Your task to perform on an android device: turn notification dots on Image 0: 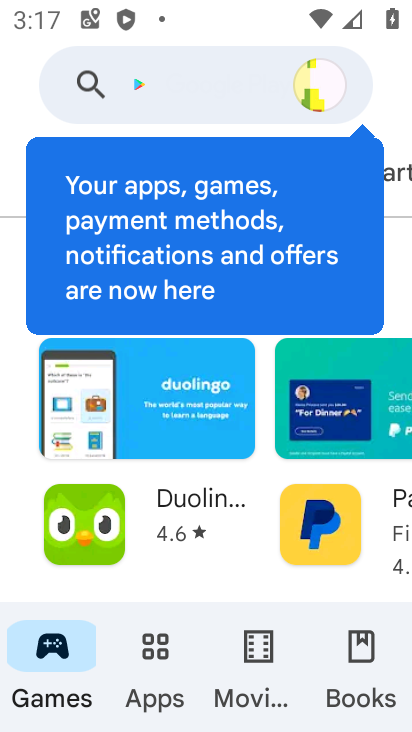
Step 0: press home button
Your task to perform on an android device: turn notification dots on Image 1: 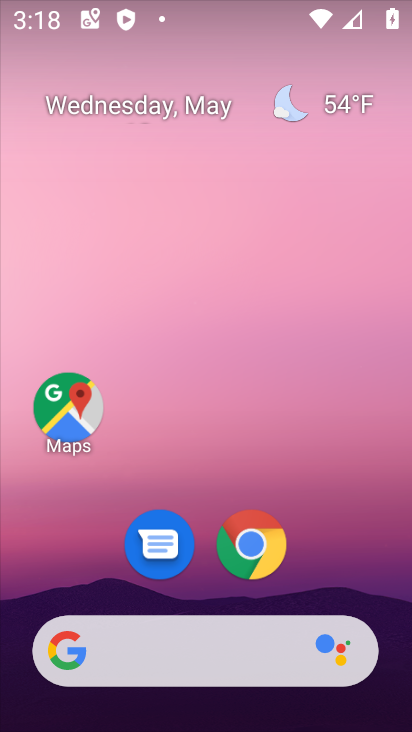
Step 1: drag from (346, 553) to (362, 19)
Your task to perform on an android device: turn notification dots on Image 2: 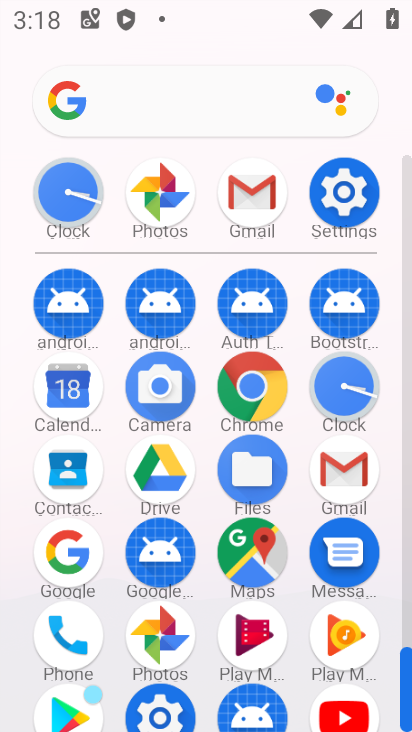
Step 2: click (361, 193)
Your task to perform on an android device: turn notification dots on Image 3: 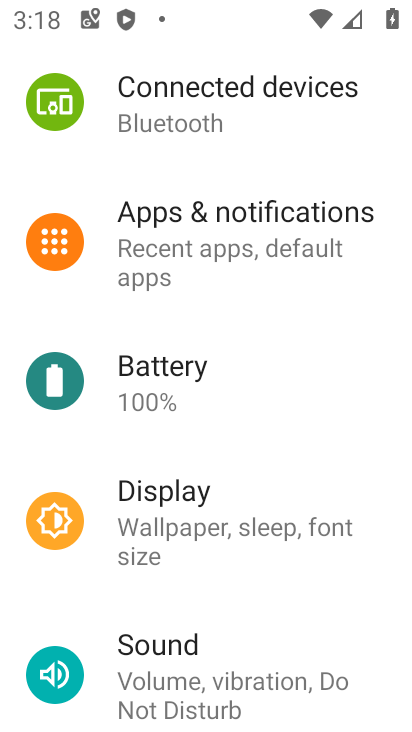
Step 3: click (244, 234)
Your task to perform on an android device: turn notification dots on Image 4: 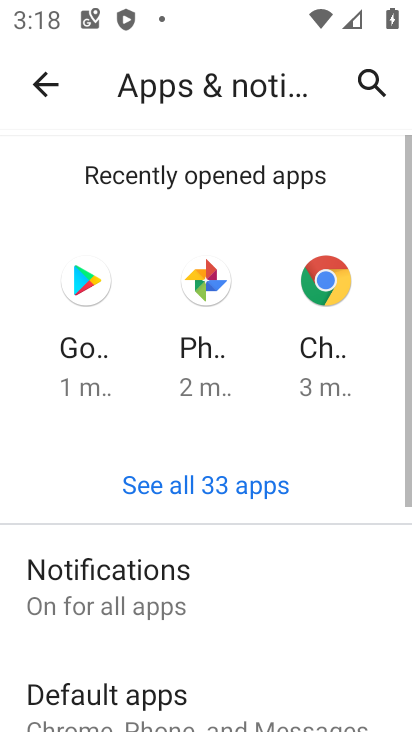
Step 4: drag from (214, 594) to (279, 218)
Your task to perform on an android device: turn notification dots on Image 5: 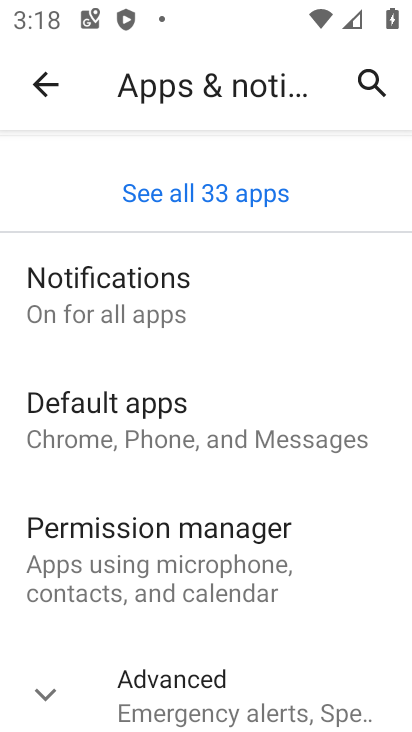
Step 5: click (234, 307)
Your task to perform on an android device: turn notification dots on Image 6: 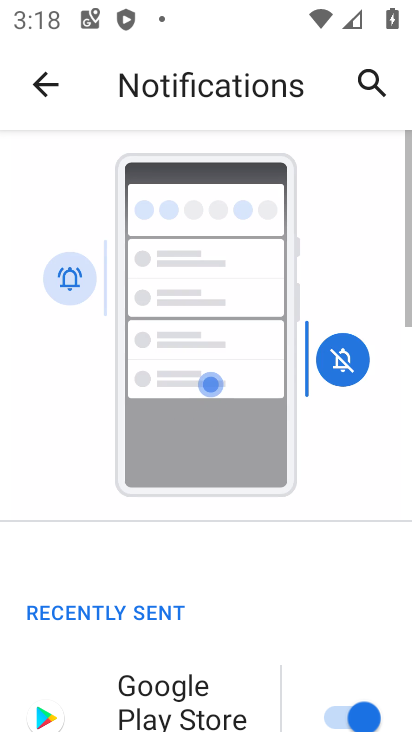
Step 6: drag from (214, 634) to (223, 159)
Your task to perform on an android device: turn notification dots on Image 7: 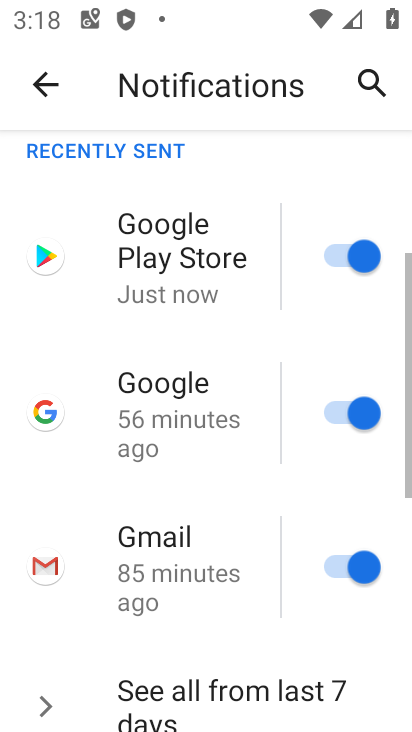
Step 7: drag from (197, 655) to (208, 247)
Your task to perform on an android device: turn notification dots on Image 8: 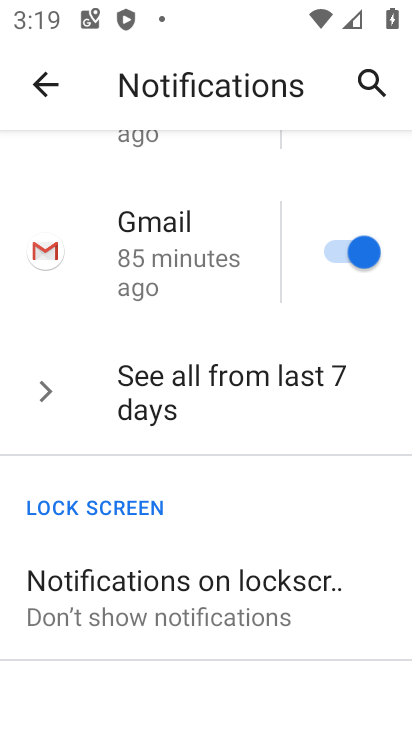
Step 8: click (237, 611)
Your task to perform on an android device: turn notification dots on Image 9: 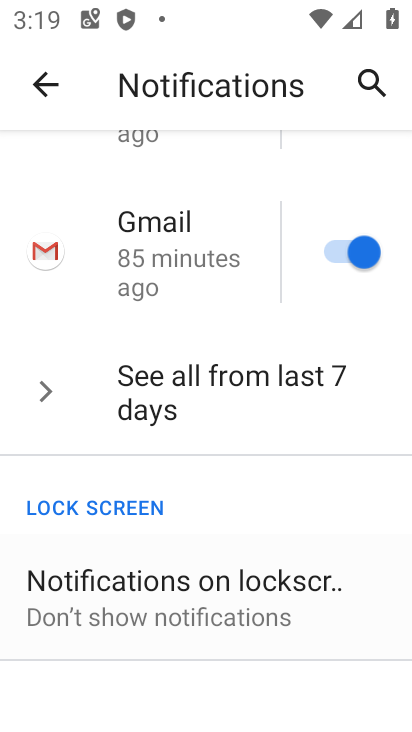
Step 9: drag from (237, 611) to (229, 380)
Your task to perform on an android device: turn notification dots on Image 10: 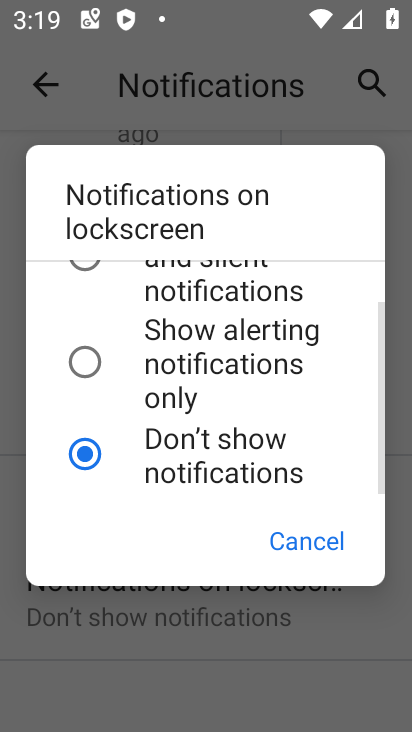
Step 10: click (293, 539)
Your task to perform on an android device: turn notification dots on Image 11: 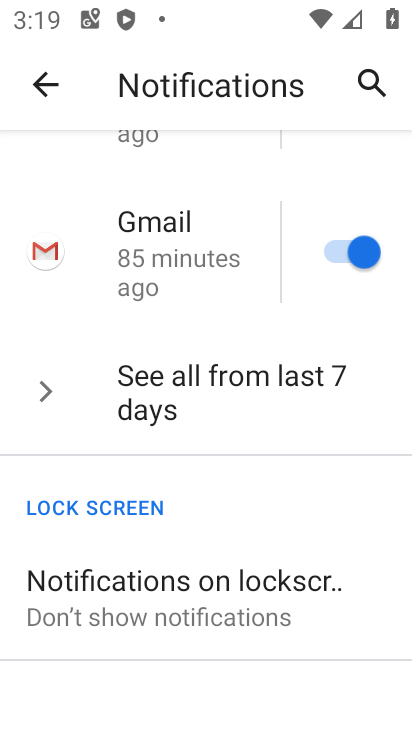
Step 11: drag from (276, 656) to (273, 206)
Your task to perform on an android device: turn notification dots on Image 12: 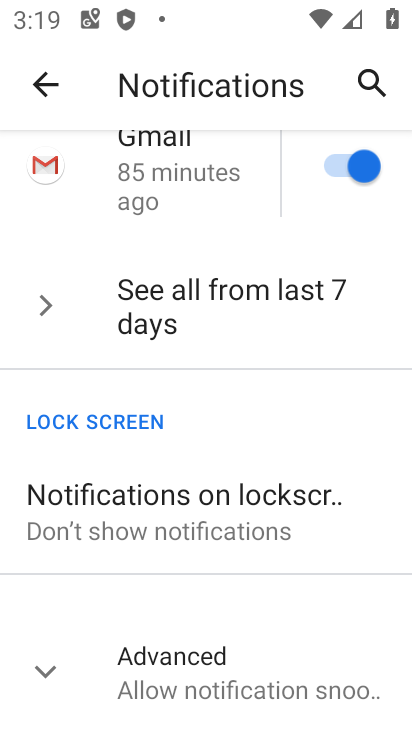
Step 12: click (255, 648)
Your task to perform on an android device: turn notification dots on Image 13: 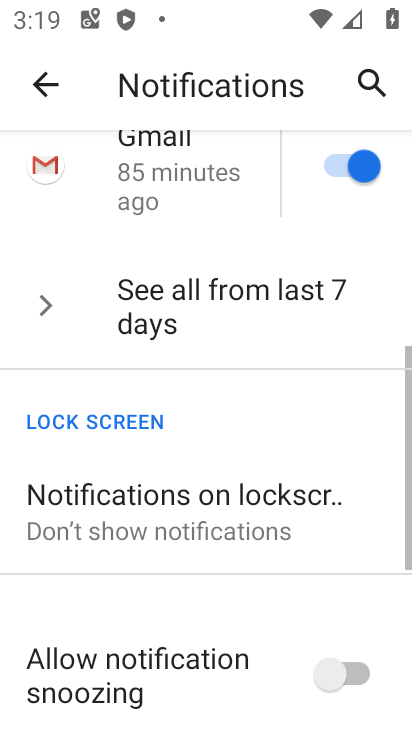
Step 13: task complete